Your task to perform on an android device: Open Reddit.com Image 0: 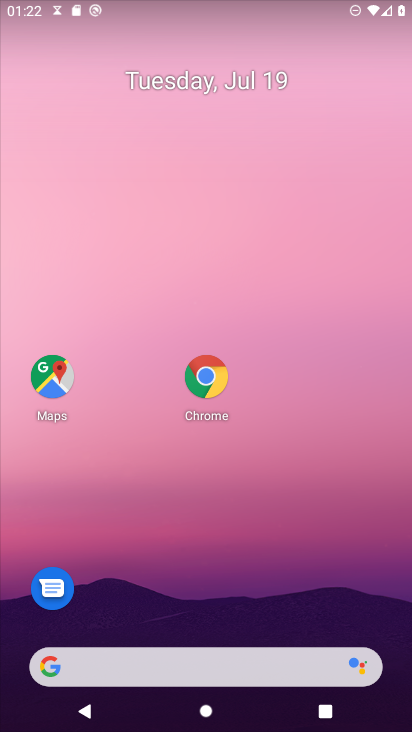
Step 0: press home button
Your task to perform on an android device: Open Reddit.com Image 1: 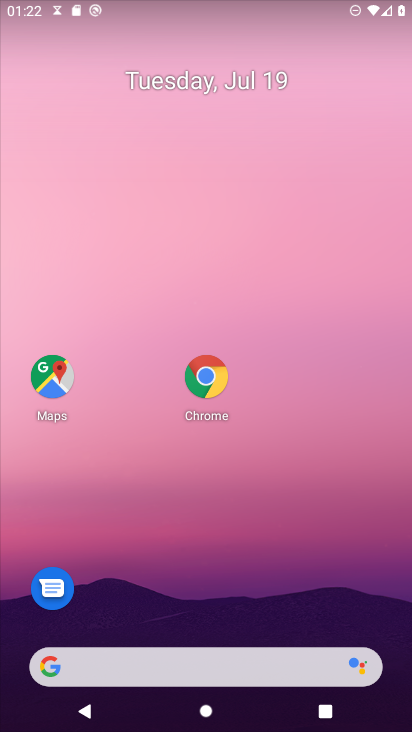
Step 1: click (43, 668)
Your task to perform on an android device: Open Reddit.com Image 2: 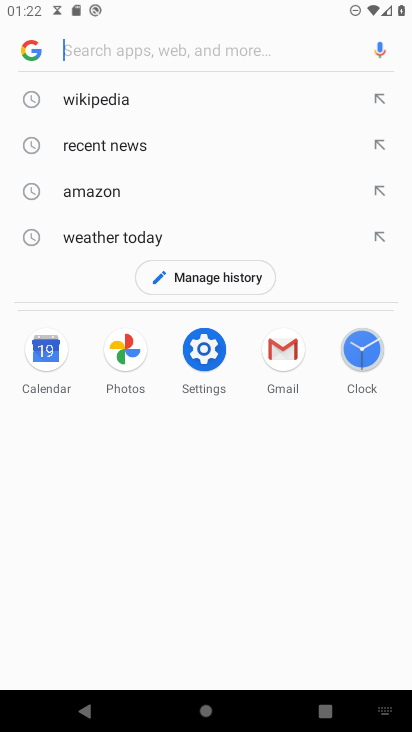
Step 2: type "Reddit.com"
Your task to perform on an android device: Open Reddit.com Image 3: 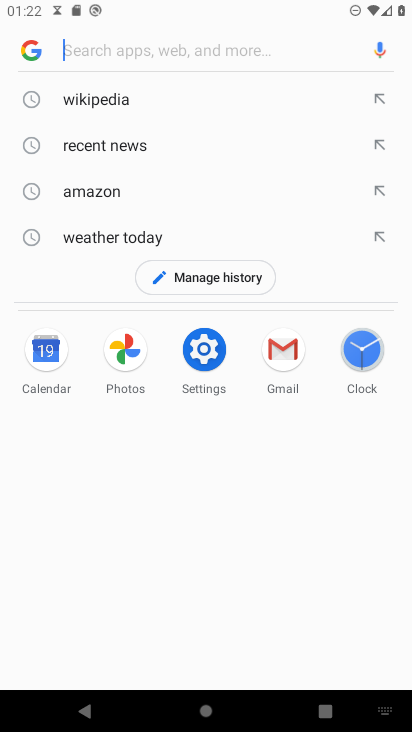
Step 3: click (172, 44)
Your task to perform on an android device: Open Reddit.com Image 4: 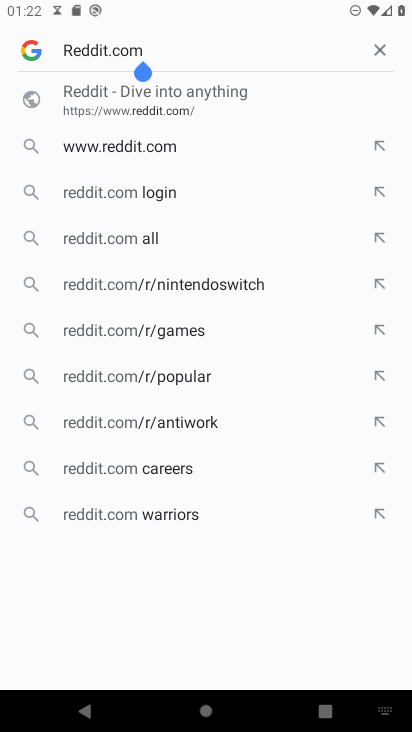
Step 4: press enter
Your task to perform on an android device: Open Reddit.com Image 5: 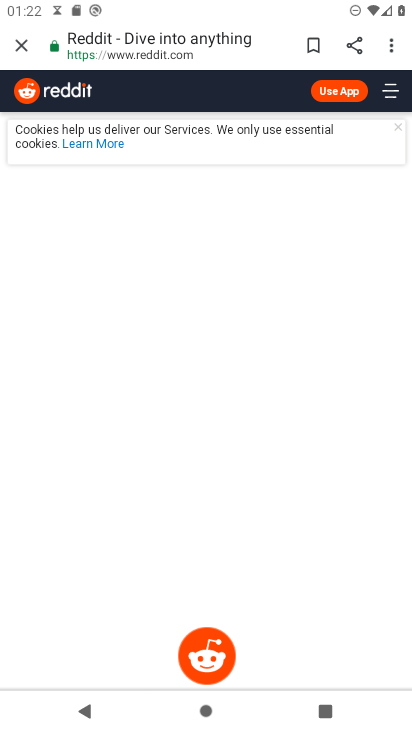
Step 5: task complete